Your task to perform on an android device: Go to Amazon Image 0: 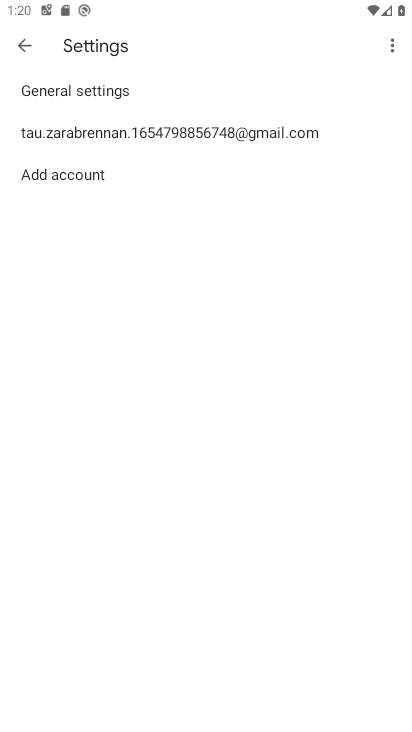
Step 0: press home button
Your task to perform on an android device: Go to Amazon Image 1: 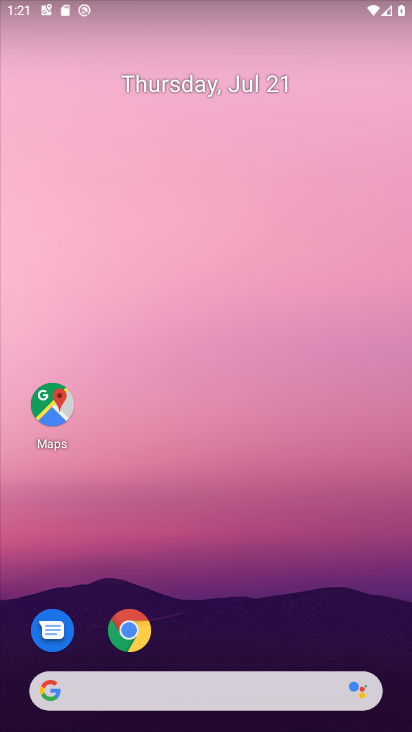
Step 1: click (133, 639)
Your task to perform on an android device: Go to Amazon Image 2: 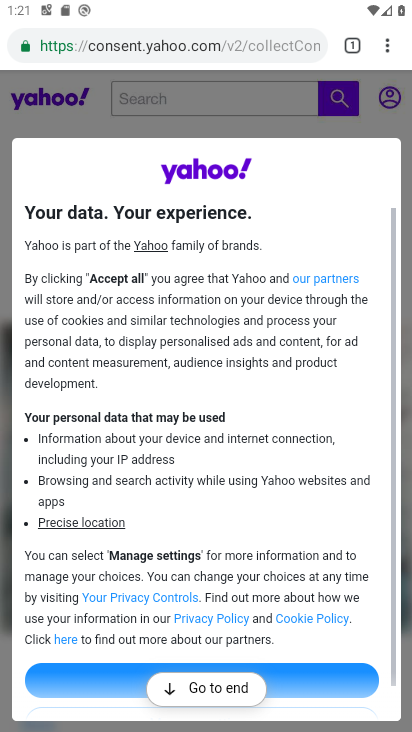
Step 2: drag from (378, 43) to (209, 73)
Your task to perform on an android device: Go to Amazon Image 3: 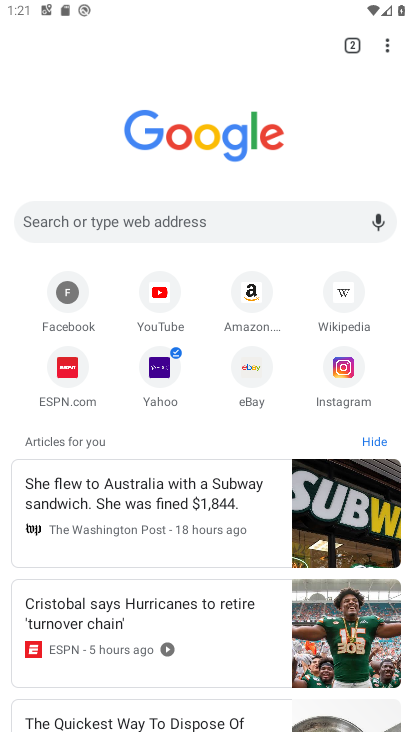
Step 3: click (231, 295)
Your task to perform on an android device: Go to Amazon Image 4: 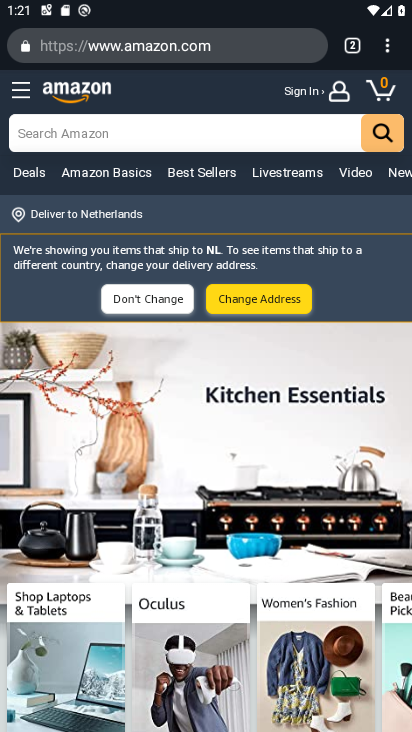
Step 4: task complete